Your task to perform on an android device: create a new album in the google photos Image 0: 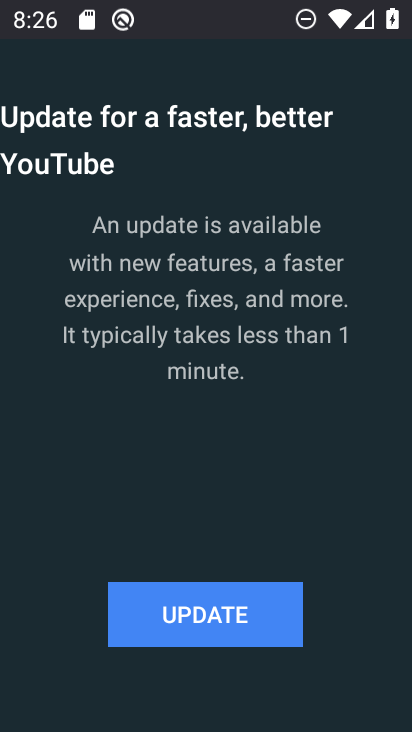
Step 0: press back button
Your task to perform on an android device: create a new album in the google photos Image 1: 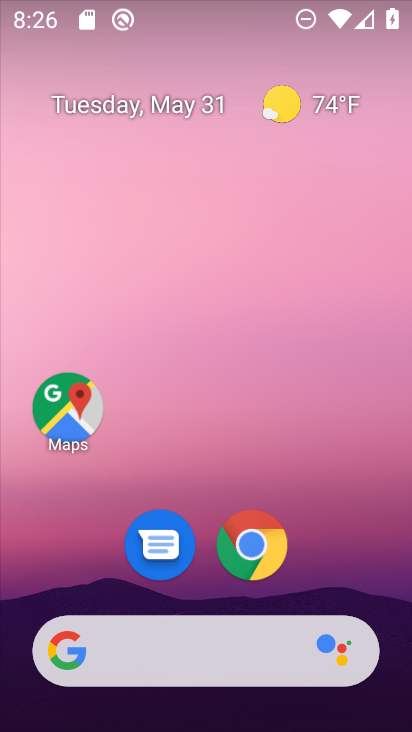
Step 1: drag from (331, 425) to (233, 1)
Your task to perform on an android device: create a new album in the google photos Image 2: 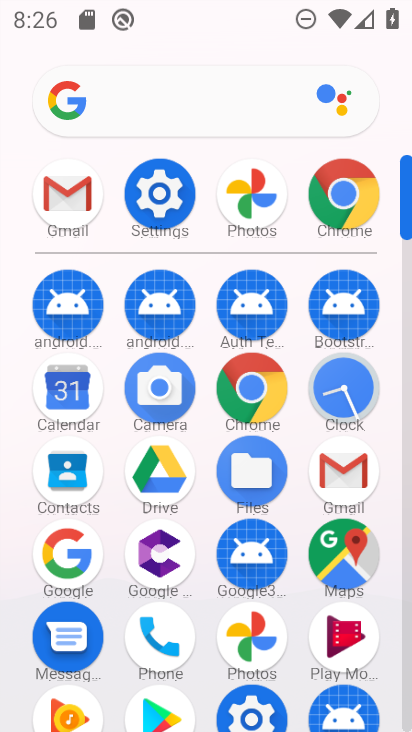
Step 2: click (252, 189)
Your task to perform on an android device: create a new album in the google photos Image 3: 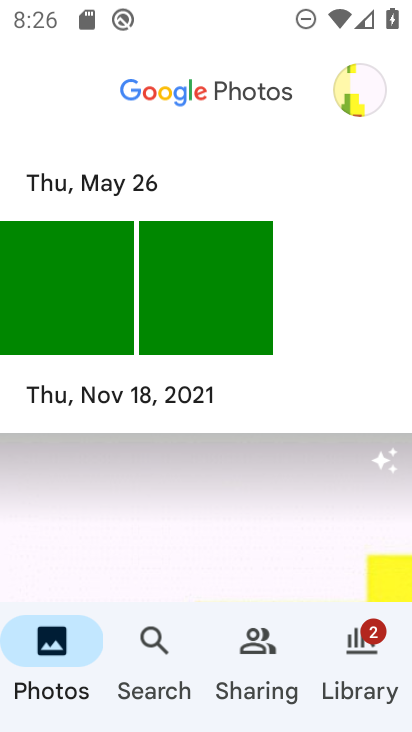
Step 3: click (212, 257)
Your task to perform on an android device: create a new album in the google photos Image 4: 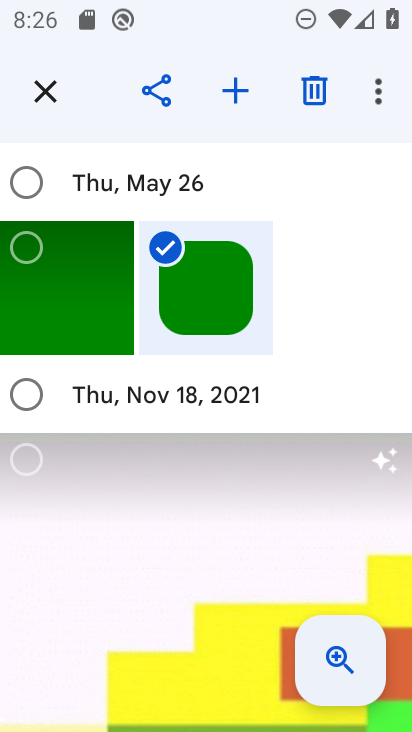
Step 4: click (232, 93)
Your task to perform on an android device: create a new album in the google photos Image 5: 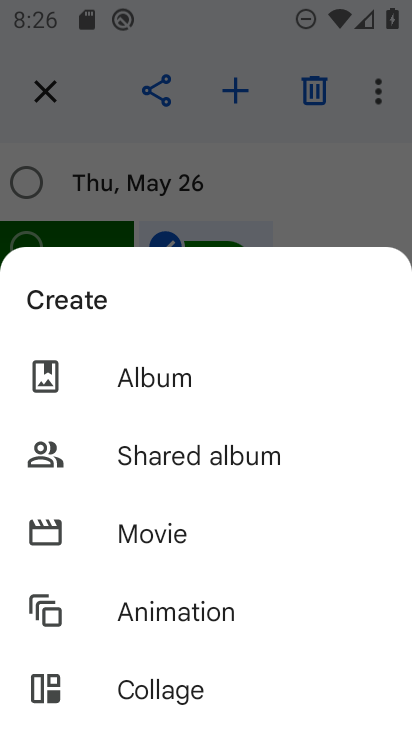
Step 5: click (130, 386)
Your task to perform on an android device: create a new album in the google photos Image 6: 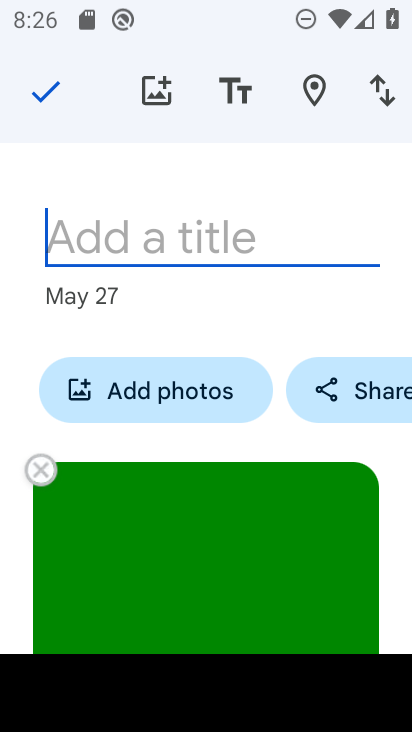
Step 6: type "Dkjhg"
Your task to perform on an android device: create a new album in the google photos Image 7: 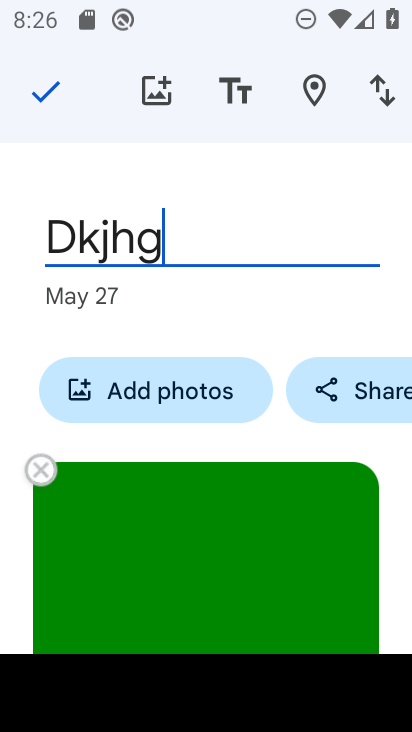
Step 7: type ""
Your task to perform on an android device: create a new album in the google photos Image 8: 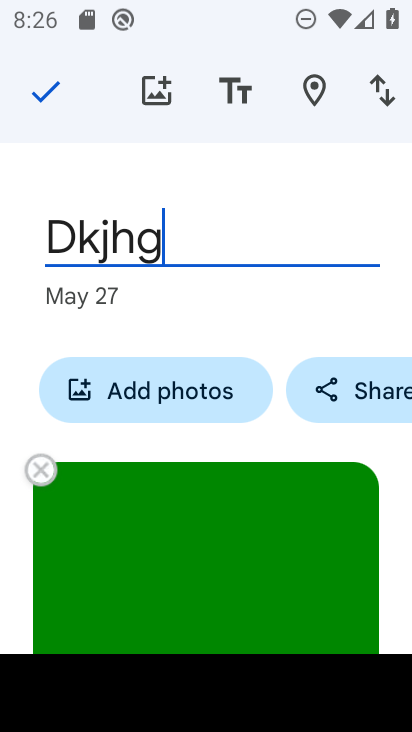
Step 8: click (47, 95)
Your task to perform on an android device: create a new album in the google photos Image 9: 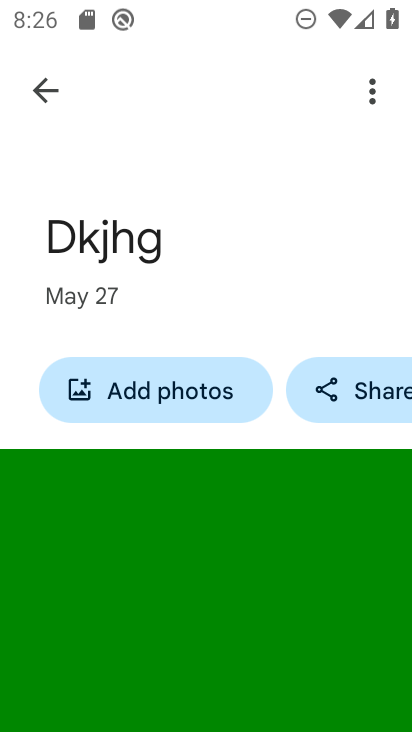
Step 9: task complete